Your task to perform on an android device: find snoozed emails in the gmail app Image 0: 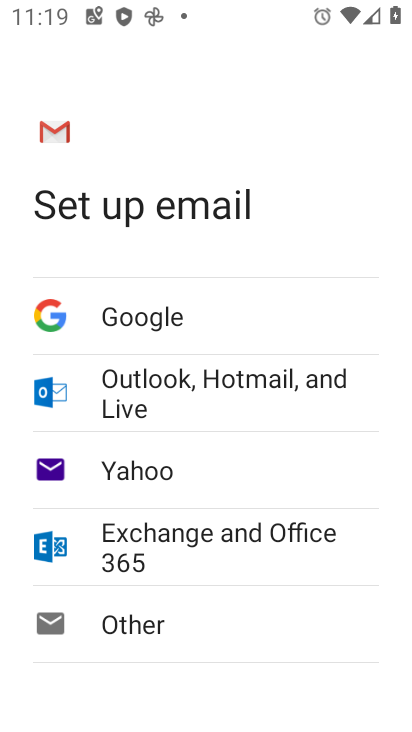
Step 0: press home button
Your task to perform on an android device: find snoozed emails in the gmail app Image 1: 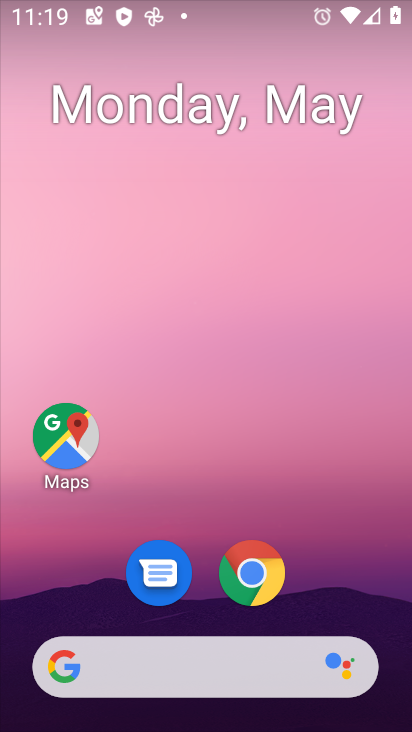
Step 1: drag from (338, 565) to (278, 94)
Your task to perform on an android device: find snoozed emails in the gmail app Image 2: 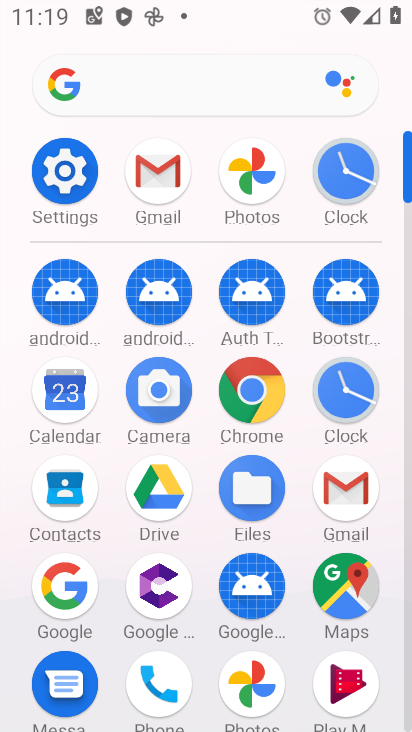
Step 2: click (333, 488)
Your task to perform on an android device: find snoozed emails in the gmail app Image 3: 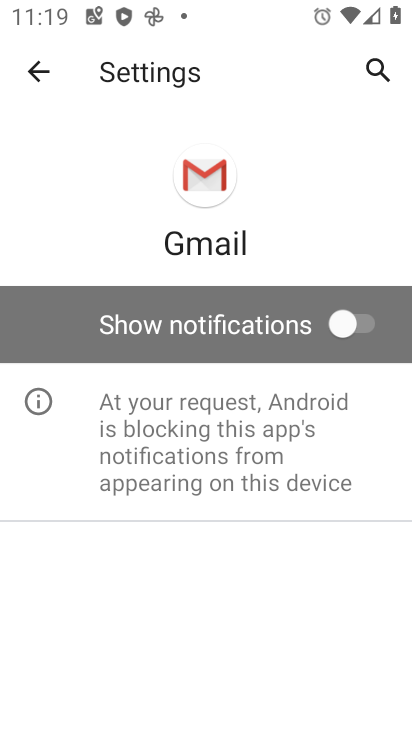
Step 3: click (43, 63)
Your task to perform on an android device: find snoozed emails in the gmail app Image 4: 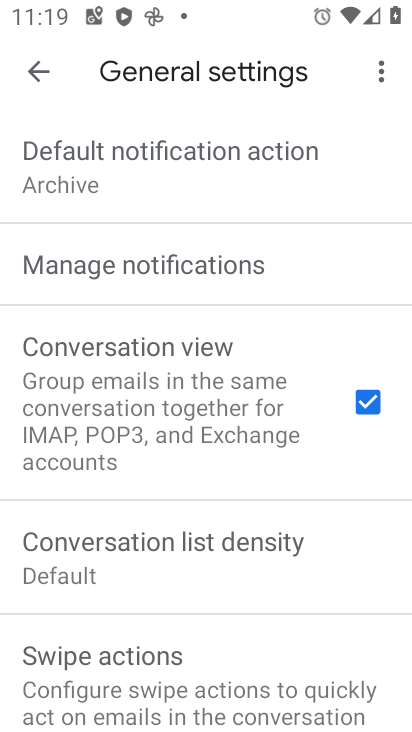
Step 4: click (37, 65)
Your task to perform on an android device: find snoozed emails in the gmail app Image 5: 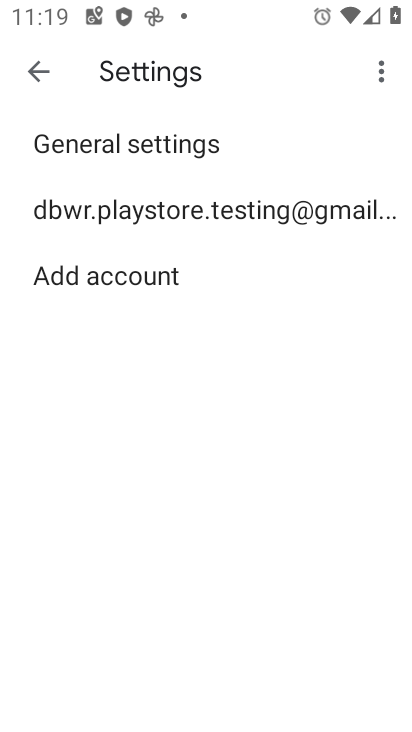
Step 5: click (46, 73)
Your task to perform on an android device: find snoozed emails in the gmail app Image 6: 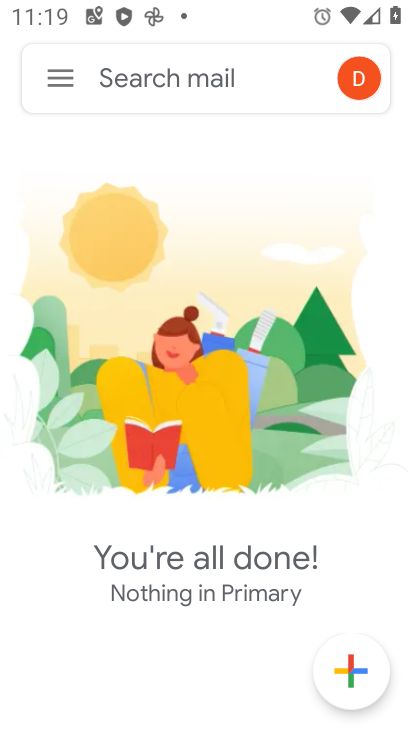
Step 6: click (72, 57)
Your task to perform on an android device: find snoozed emails in the gmail app Image 7: 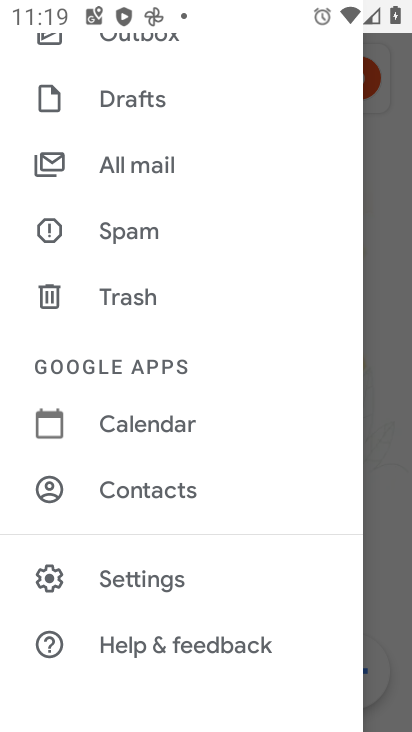
Step 7: drag from (172, 170) to (213, 366)
Your task to perform on an android device: find snoozed emails in the gmail app Image 8: 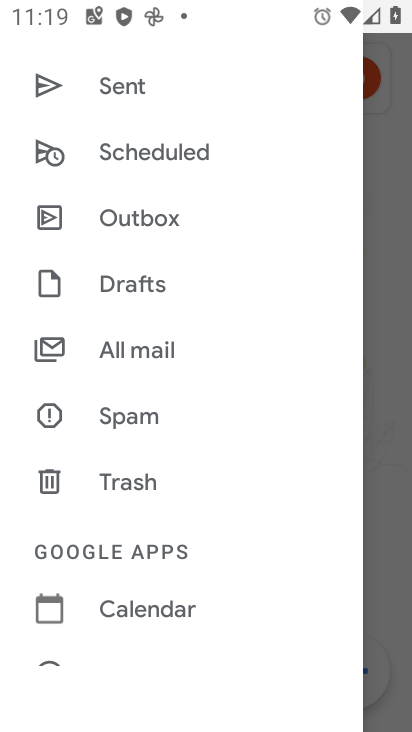
Step 8: drag from (204, 108) to (259, 228)
Your task to perform on an android device: find snoozed emails in the gmail app Image 9: 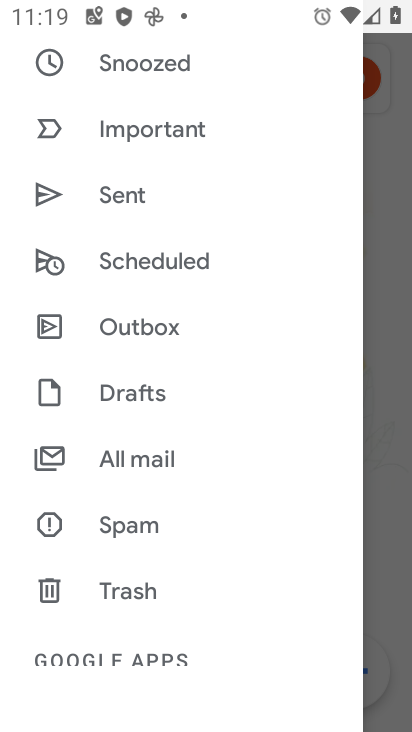
Step 9: drag from (179, 116) to (330, 560)
Your task to perform on an android device: find snoozed emails in the gmail app Image 10: 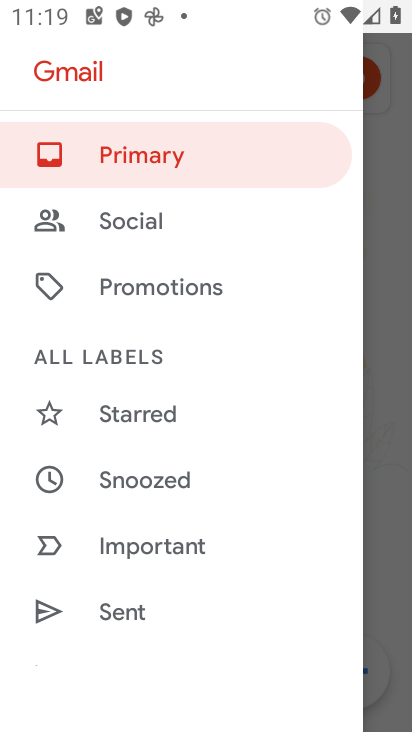
Step 10: click (191, 162)
Your task to perform on an android device: find snoozed emails in the gmail app Image 11: 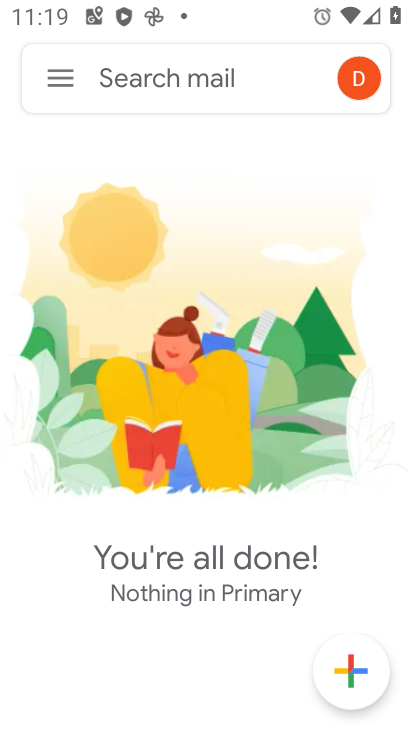
Step 11: task complete